Your task to perform on an android device: Open Reddit.com Image 0: 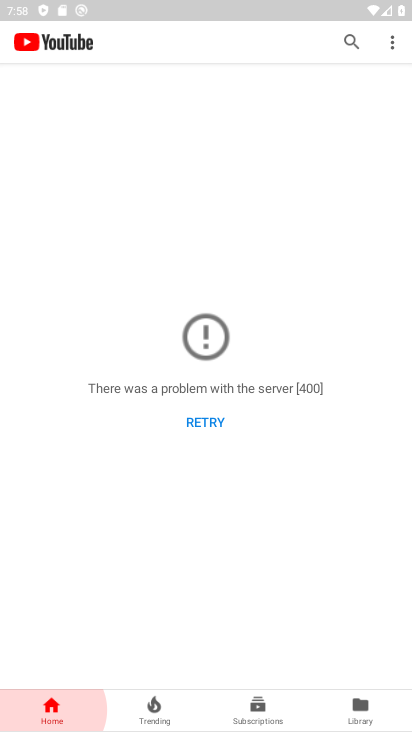
Step 0: press home button
Your task to perform on an android device: Open Reddit.com Image 1: 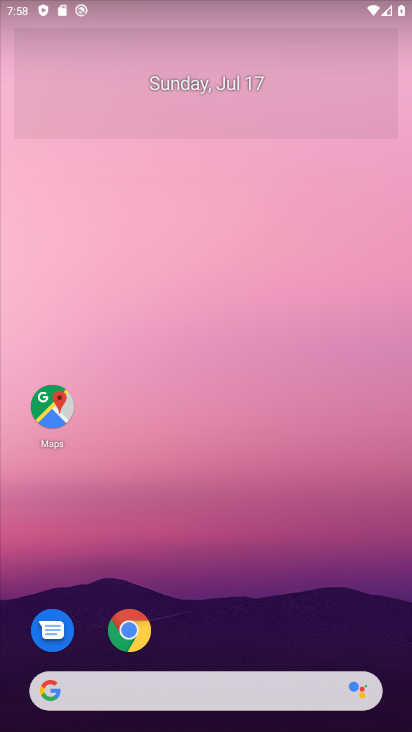
Step 1: click (69, 702)
Your task to perform on an android device: Open Reddit.com Image 2: 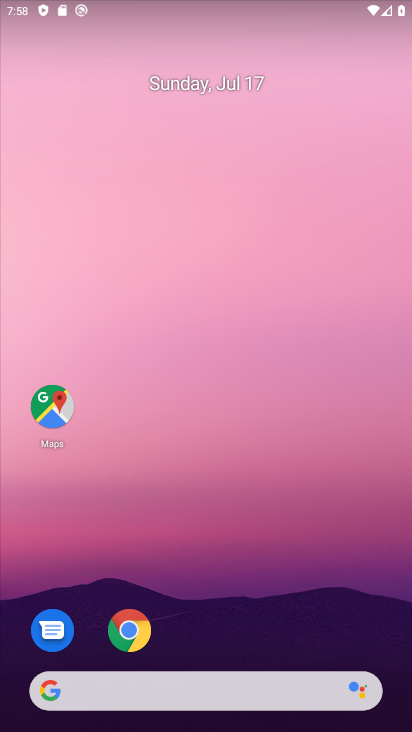
Step 2: click (76, 689)
Your task to perform on an android device: Open Reddit.com Image 3: 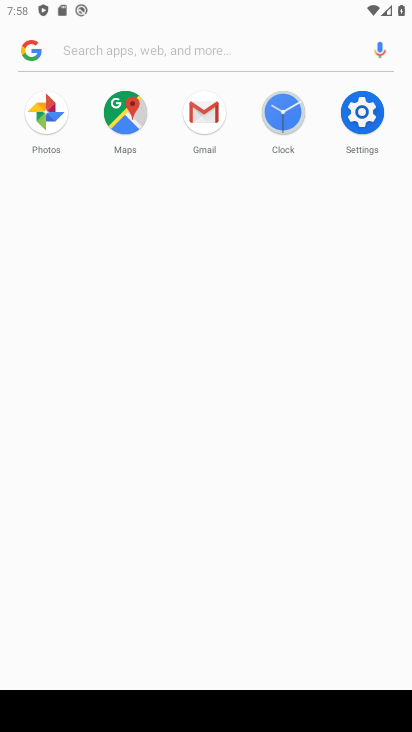
Step 3: type " Reddit.com"
Your task to perform on an android device: Open Reddit.com Image 4: 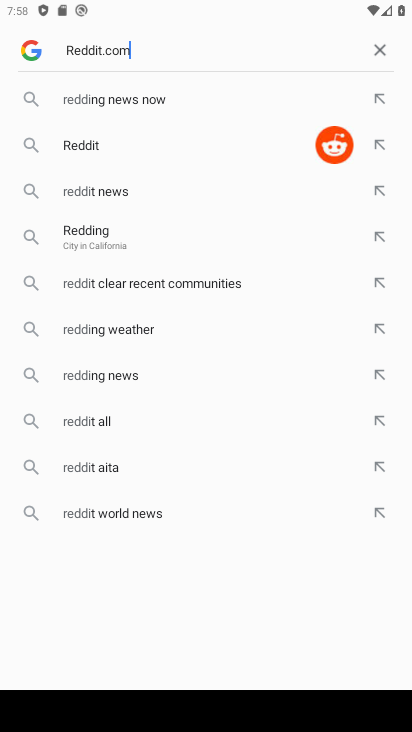
Step 4: type ""
Your task to perform on an android device: Open Reddit.com Image 5: 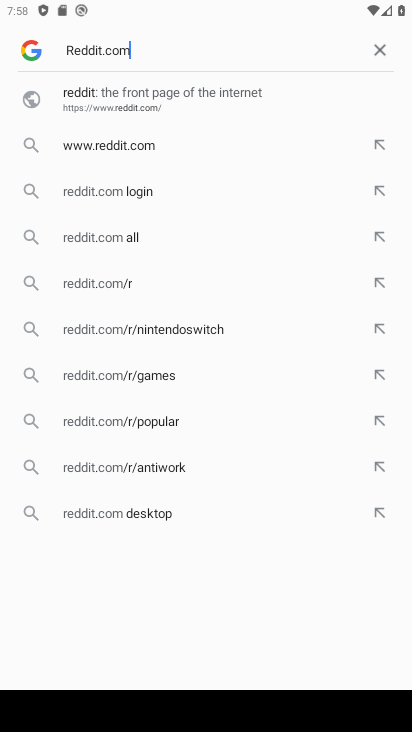
Step 5: click (146, 141)
Your task to perform on an android device: Open Reddit.com Image 6: 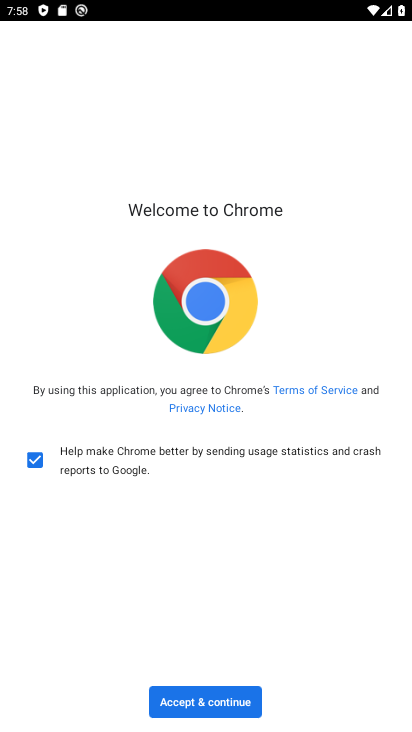
Step 6: click (184, 696)
Your task to perform on an android device: Open Reddit.com Image 7: 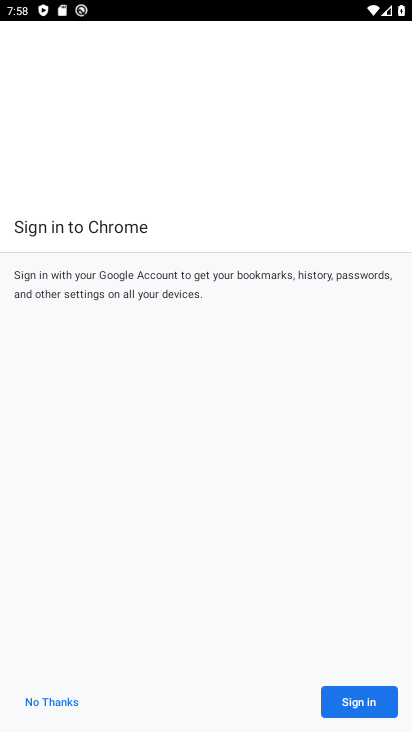
Step 7: click (382, 703)
Your task to perform on an android device: Open Reddit.com Image 8: 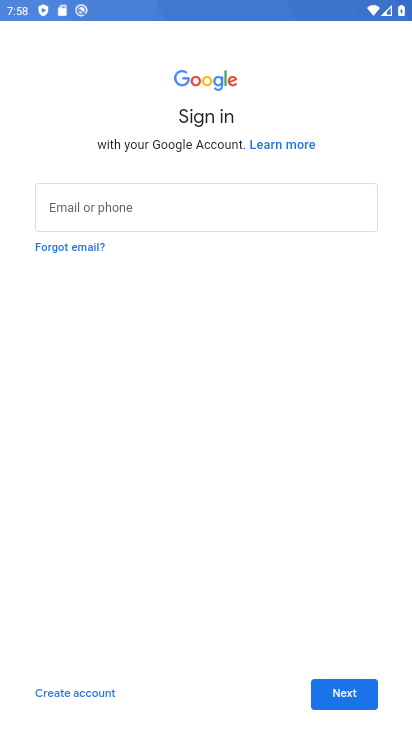
Step 8: click (332, 695)
Your task to perform on an android device: Open Reddit.com Image 9: 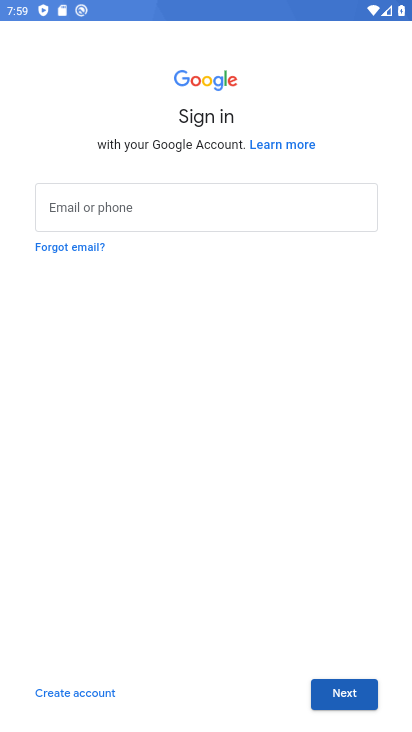
Step 9: task complete